Your task to perform on an android device: Open Yahoo.com Image 0: 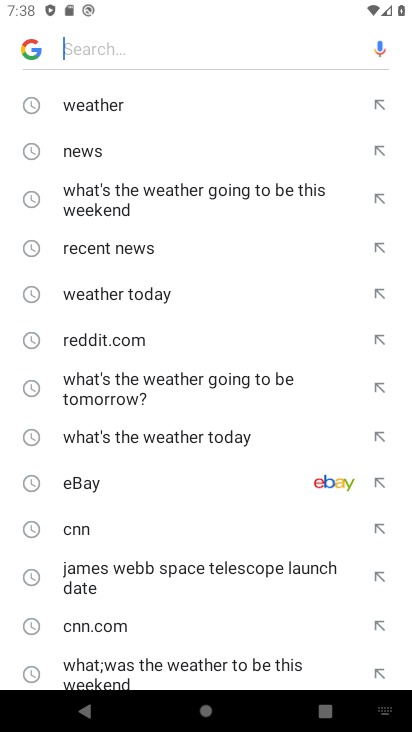
Step 0: press home button
Your task to perform on an android device: Open Yahoo.com Image 1: 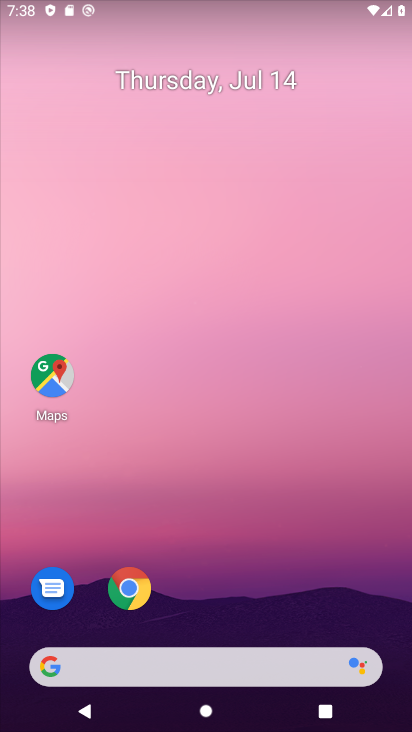
Step 1: click (137, 586)
Your task to perform on an android device: Open Yahoo.com Image 2: 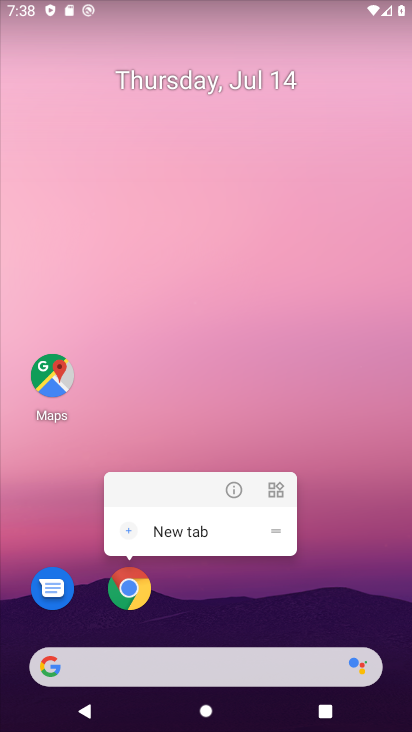
Step 2: click (134, 591)
Your task to perform on an android device: Open Yahoo.com Image 3: 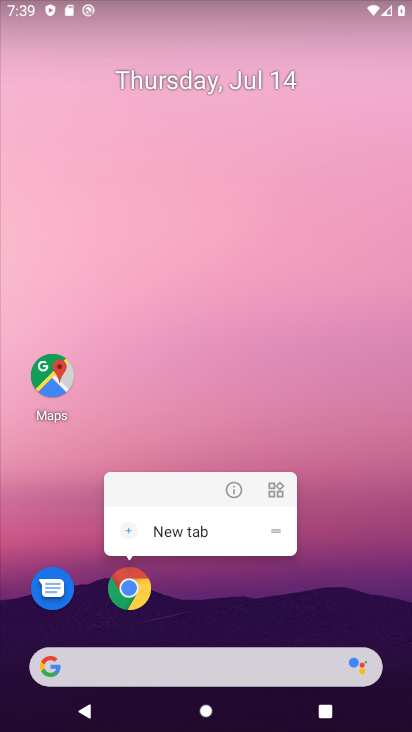
Step 3: click (123, 591)
Your task to perform on an android device: Open Yahoo.com Image 4: 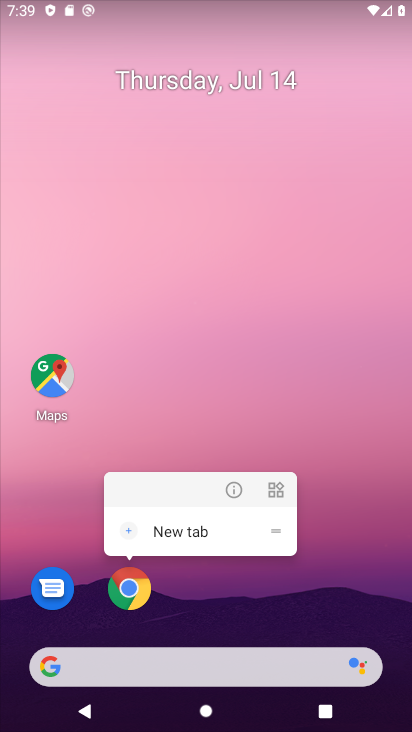
Step 4: click (131, 582)
Your task to perform on an android device: Open Yahoo.com Image 5: 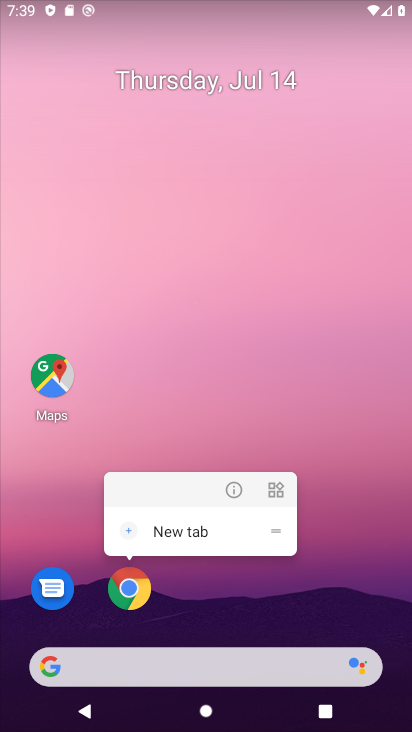
Step 5: click (131, 582)
Your task to perform on an android device: Open Yahoo.com Image 6: 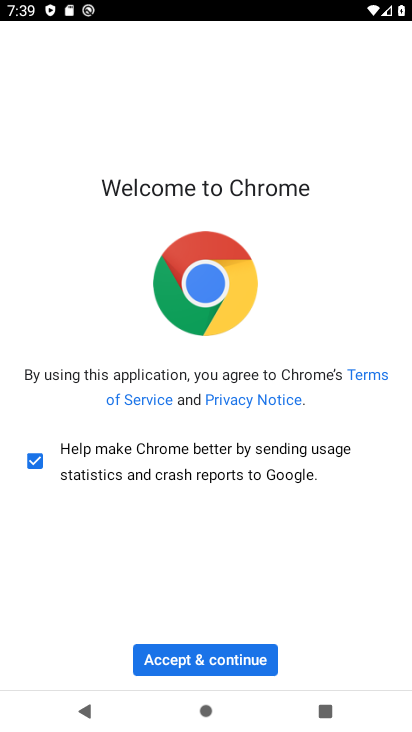
Step 6: click (220, 656)
Your task to perform on an android device: Open Yahoo.com Image 7: 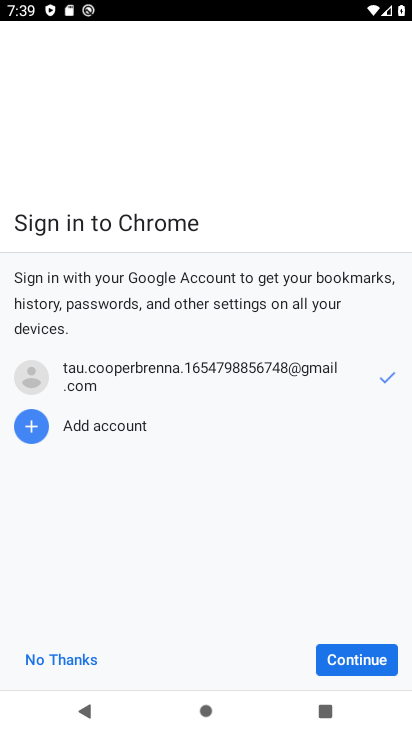
Step 7: click (345, 658)
Your task to perform on an android device: Open Yahoo.com Image 8: 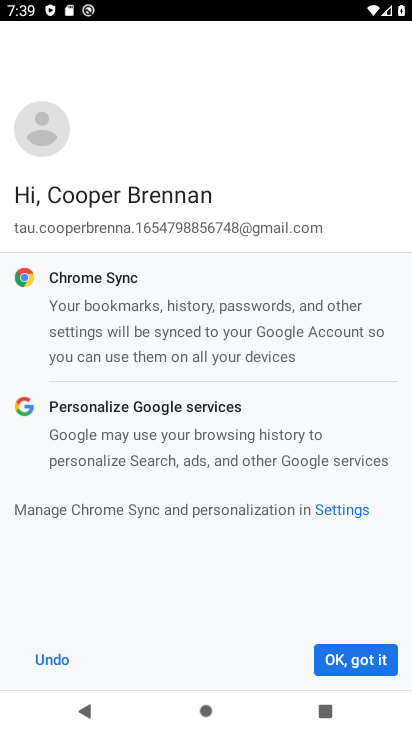
Step 8: click (348, 655)
Your task to perform on an android device: Open Yahoo.com Image 9: 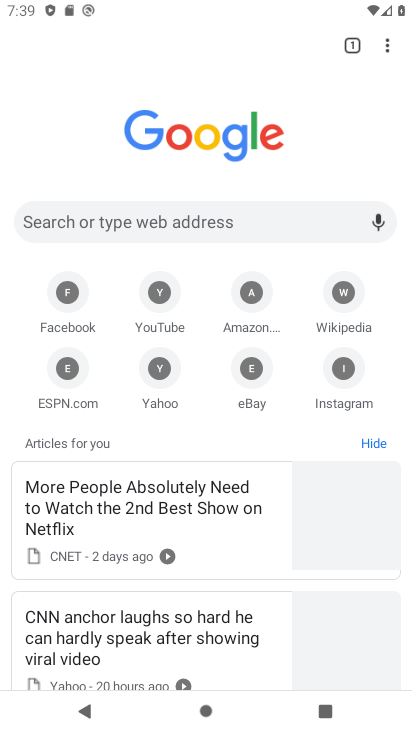
Step 9: click (114, 55)
Your task to perform on an android device: Open Yahoo.com Image 10: 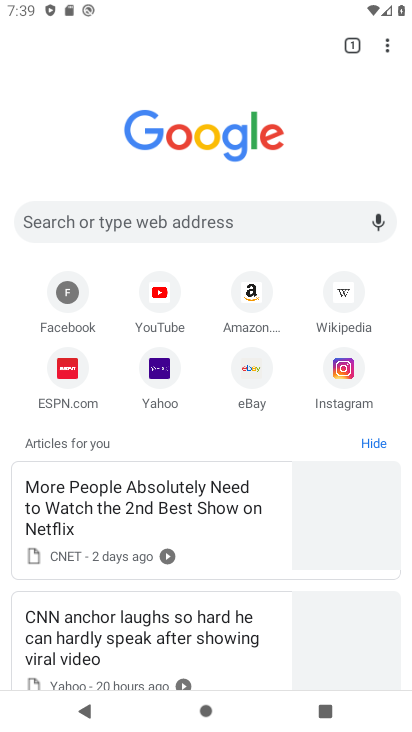
Step 10: click (108, 214)
Your task to perform on an android device: Open Yahoo.com Image 11: 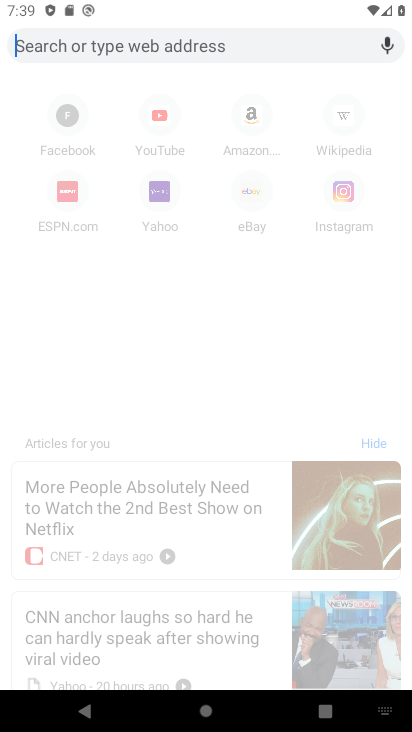
Step 11: type "Yahoo.com"
Your task to perform on an android device: Open Yahoo.com Image 12: 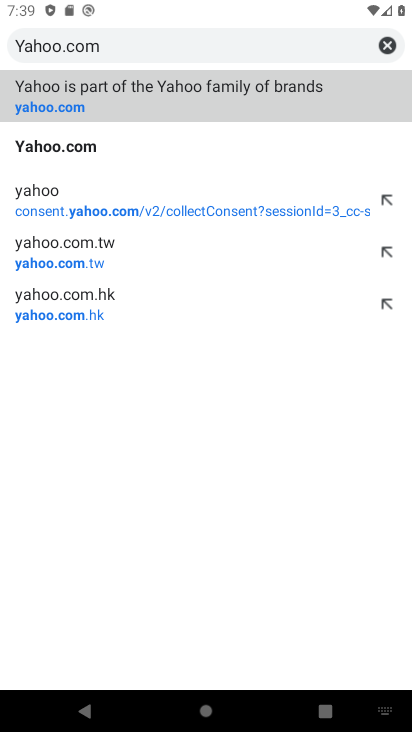
Step 12: click (106, 143)
Your task to perform on an android device: Open Yahoo.com Image 13: 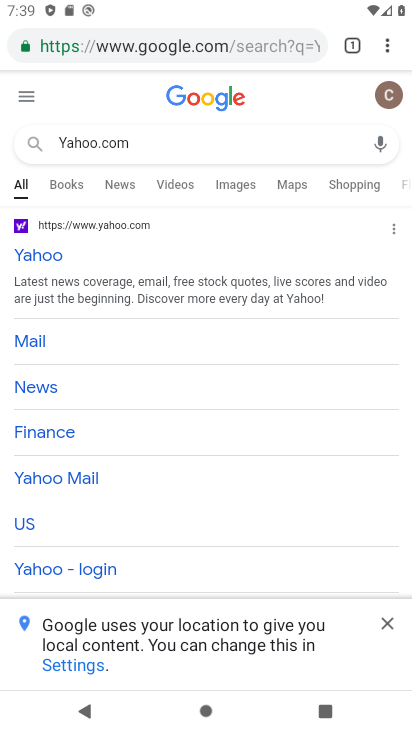
Step 13: task complete